Your task to perform on an android device: toggle airplane mode Image 0: 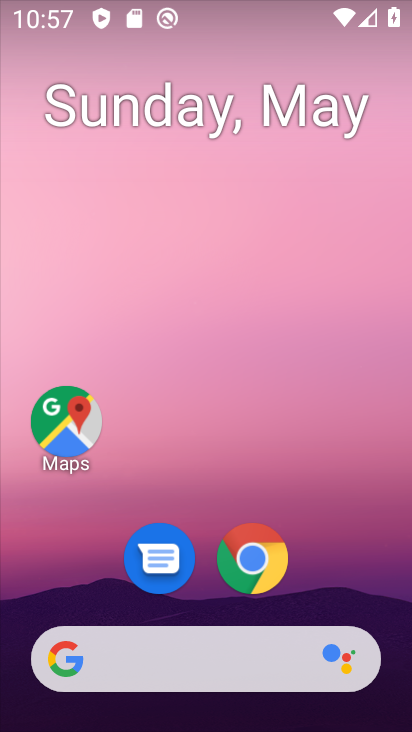
Step 0: drag from (369, 597) to (377, 179)
Your task to perform on an android device: toggle airplane mode Image 1: 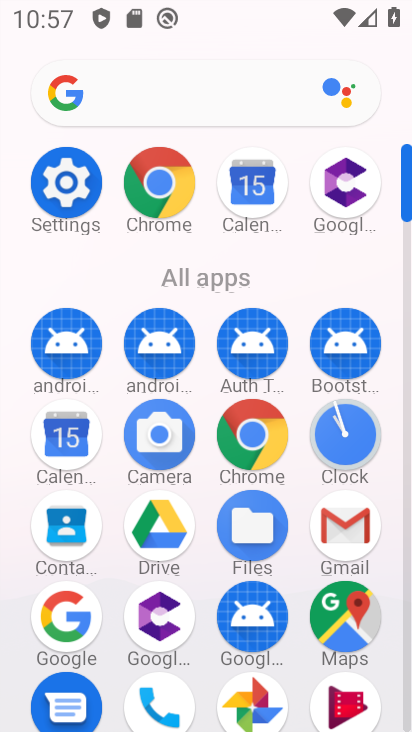
Step 1: click (76, 182)
Your task to perform on an android device: toggle airplane mode Image 2: 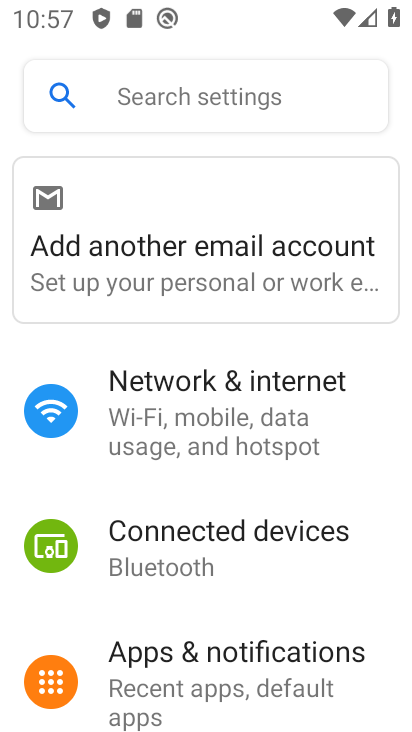
Step 2: drag from (377, 589) to (385, 412)
Your task to perform on an android device: toggle airplane mode Image 3: 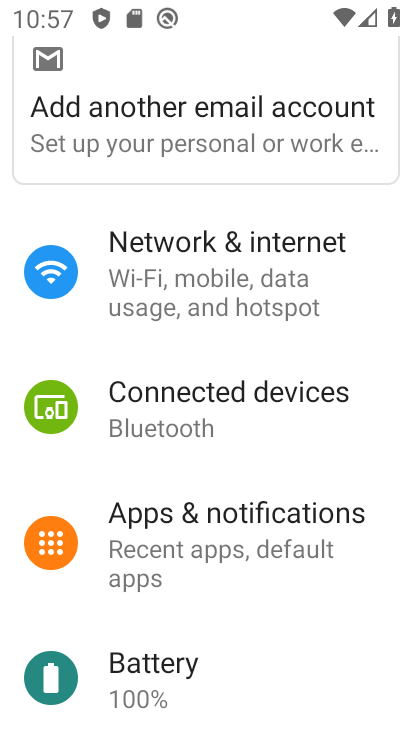
Step 3: drag from (346, 606) to (347, 396)
Your task to perform on an android device: toggle airplane mode Image 4: 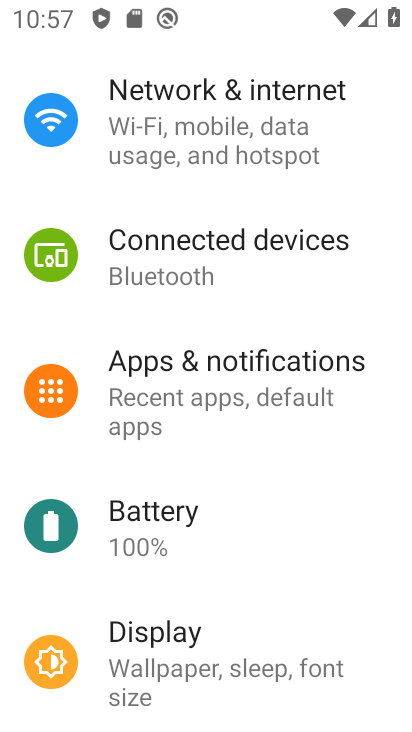
Step 4: drag from (355, 603) to (367, 462)
Your task to perform on an android device: toggle airplane mode Image 5: 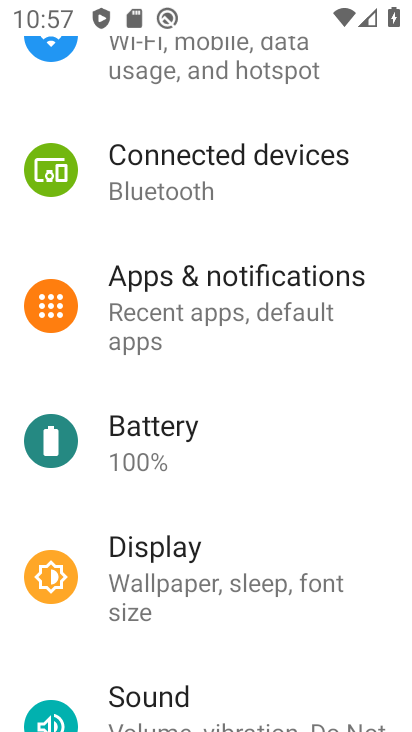
Step 5: drag from (354, 650) to (354, 469)
Your task to perform on an android device: toggle airplane mode Image 6: 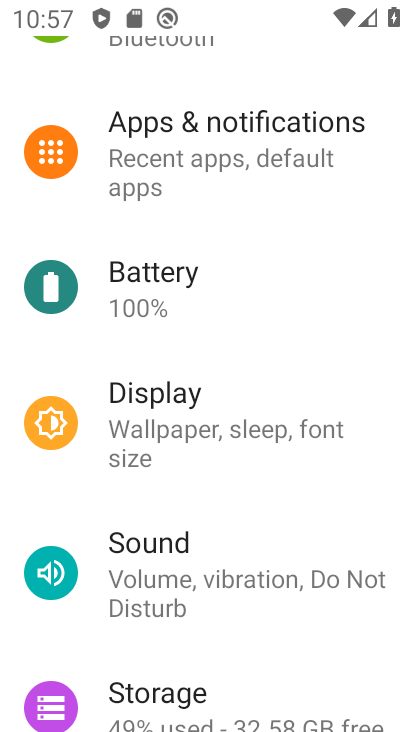
Step 6: drag from (339, 672) to (357, 379)
Your task to perform on an android device: toggle airplane mode Image 7: 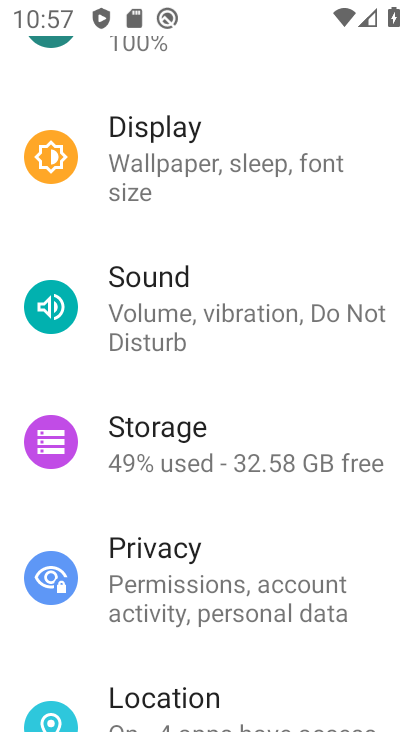
Step 7: drag from (378, 249) to (381, 416)
Your task to perform on an android device: toggle airplane mode Image 8: 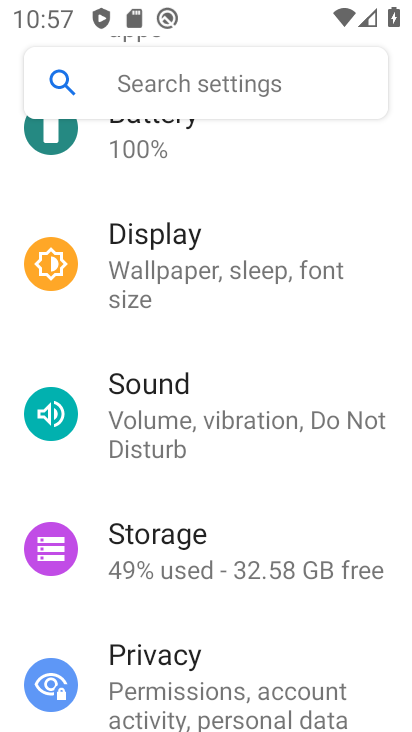
Step 8: drag from (377, 193) to (363, 396)
Your task to perform on an android device: toggle airplane mode Image 9: 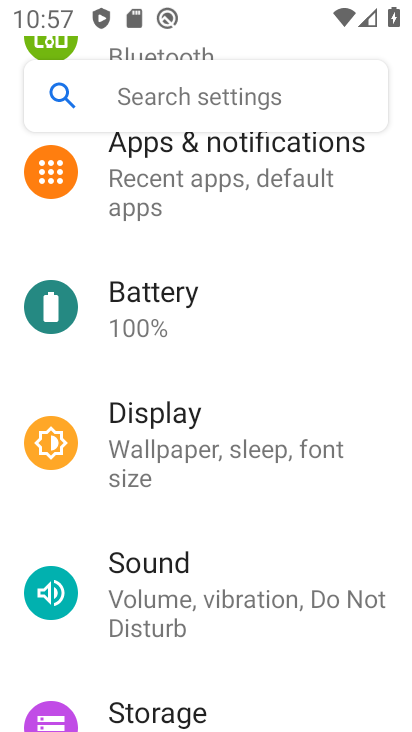
Step 9: drag from (372, 180) to (366, 402)
Your task to perform on an android device: toggle airplane mode Image 10: 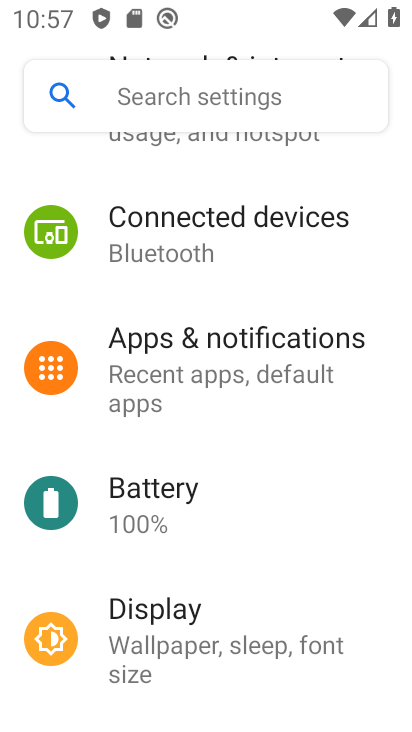
Step 10: drag from (371, 183) to (361, 372)
Your task to perform on an android device: toggle airplane mode Image 11: 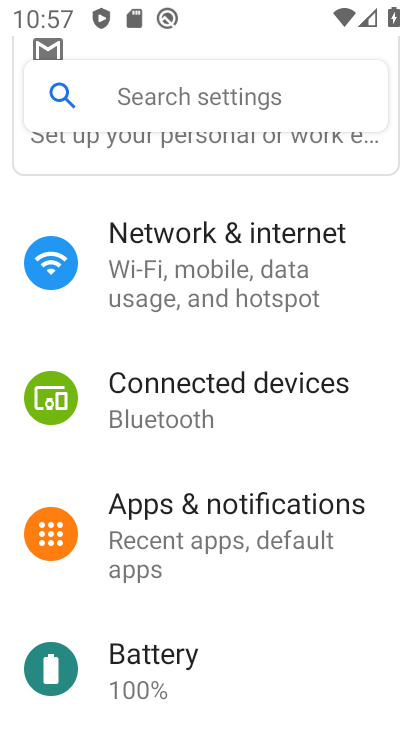
Step 11: click (278, 290)
Your task to perform on an android device: toggle airplane mode Image 12: 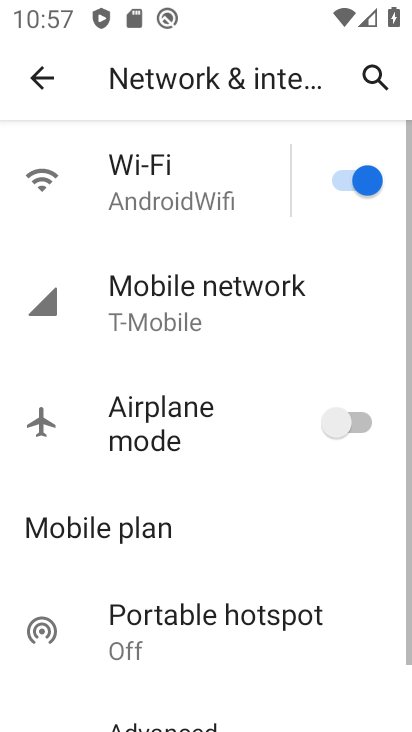
Step 12: click (340, 423)
Your task to perform on an android device: toggle airplane mode Image 13: 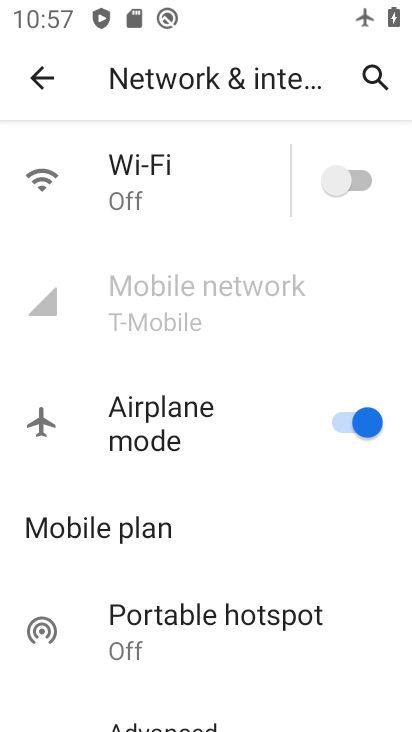
Step 13: task complete